Your task to perform on an android device: What's on my calendar today? Image 0: 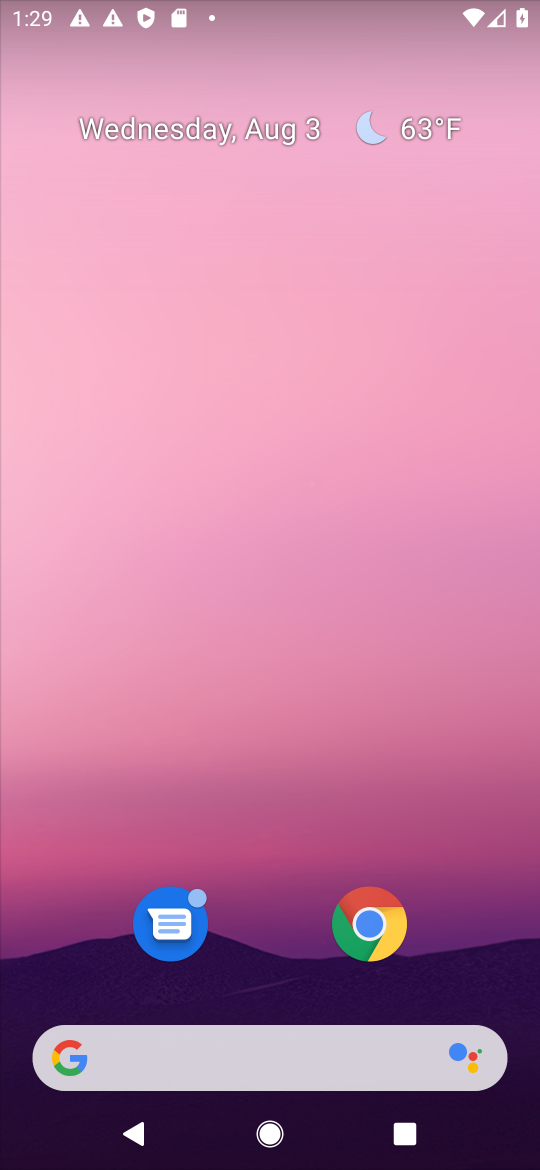
Step 0: press home button
Your task to perform on an android device: What's on my calendar today? Image 1: 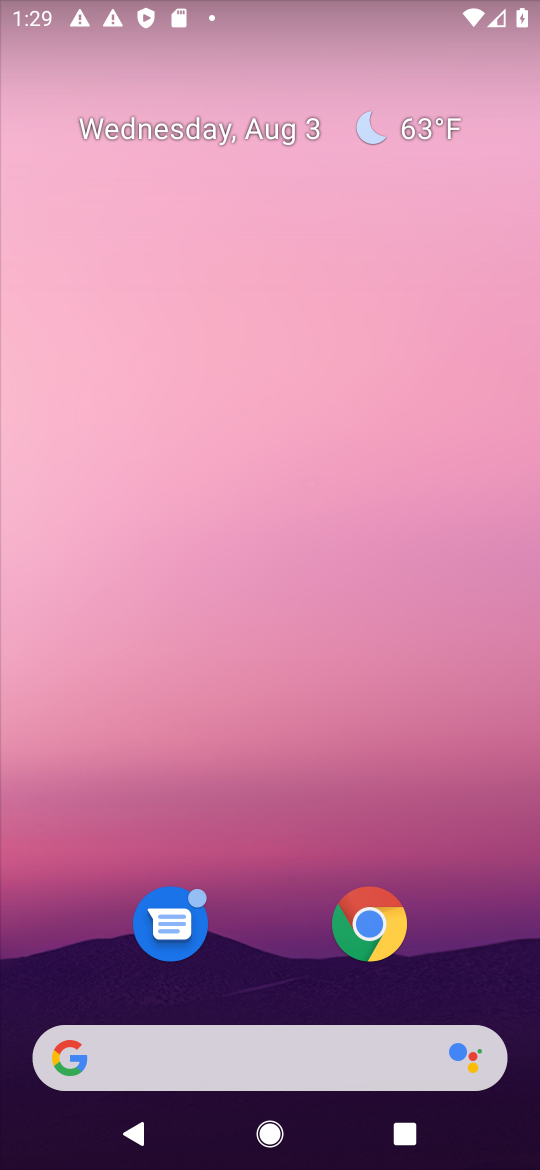
Step 1: drag from (273, 973) to (330, 0)
Your task to perform on an android device: What's on my calendar today? Image 2: 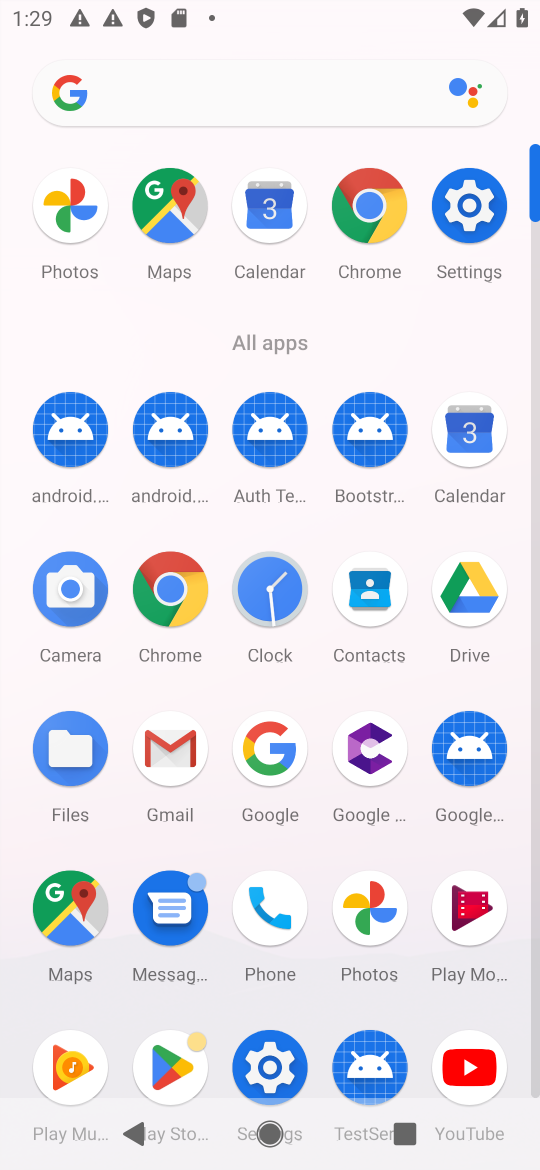
Step 2: click (468, 427)
Your task to perform on an android device: What's on my calendar today? Image 3: 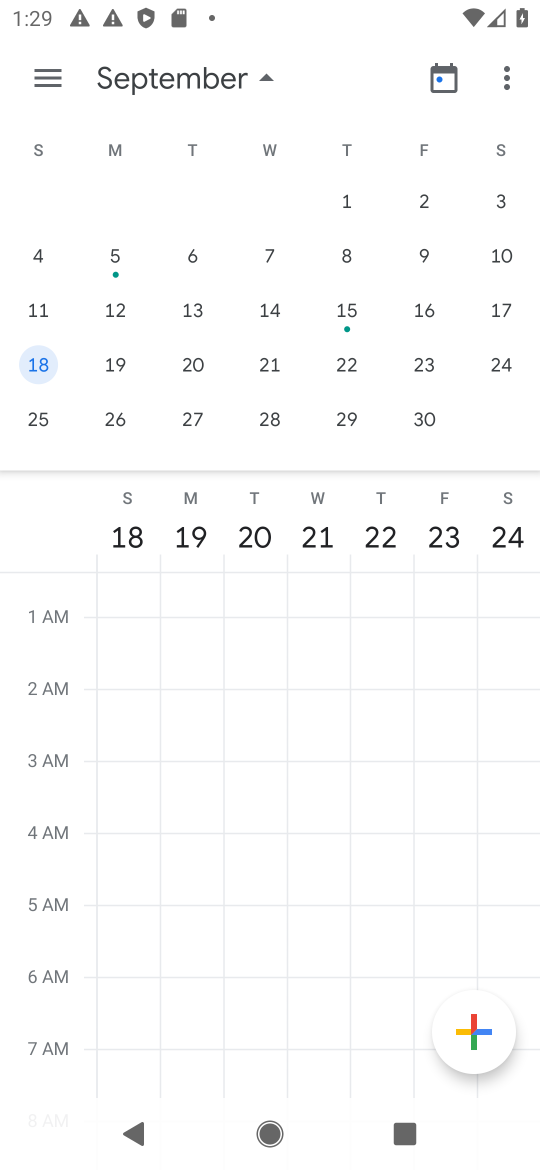
Step 3: click (32, 66)
Your task to perform on an android device: What's on my calendar today? Image 4: 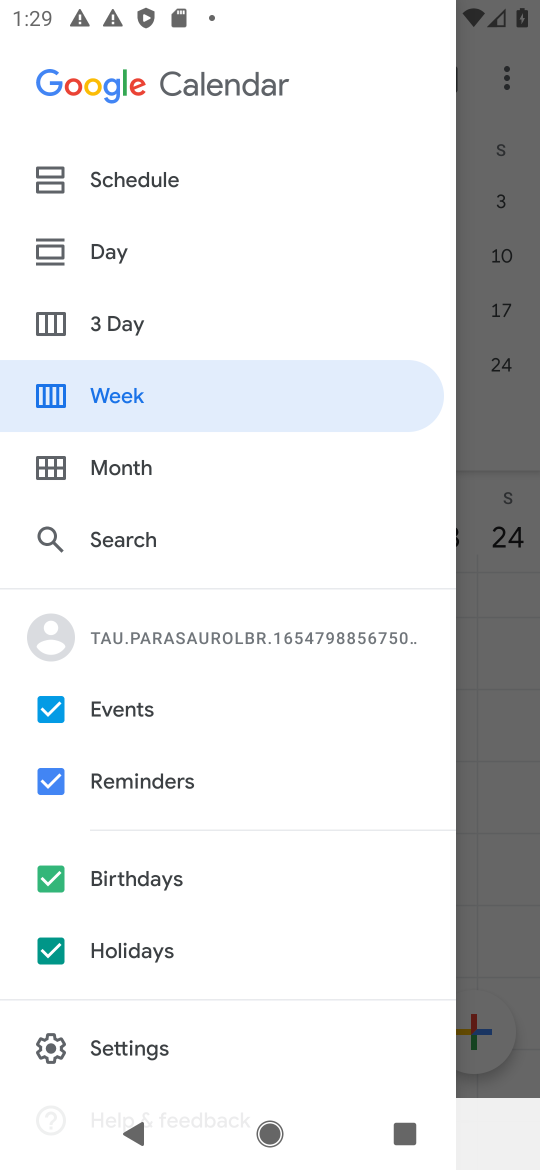
Step 4: click (99, 249)
Your task to perform on an android device: What's on my calendar today? Image 5: 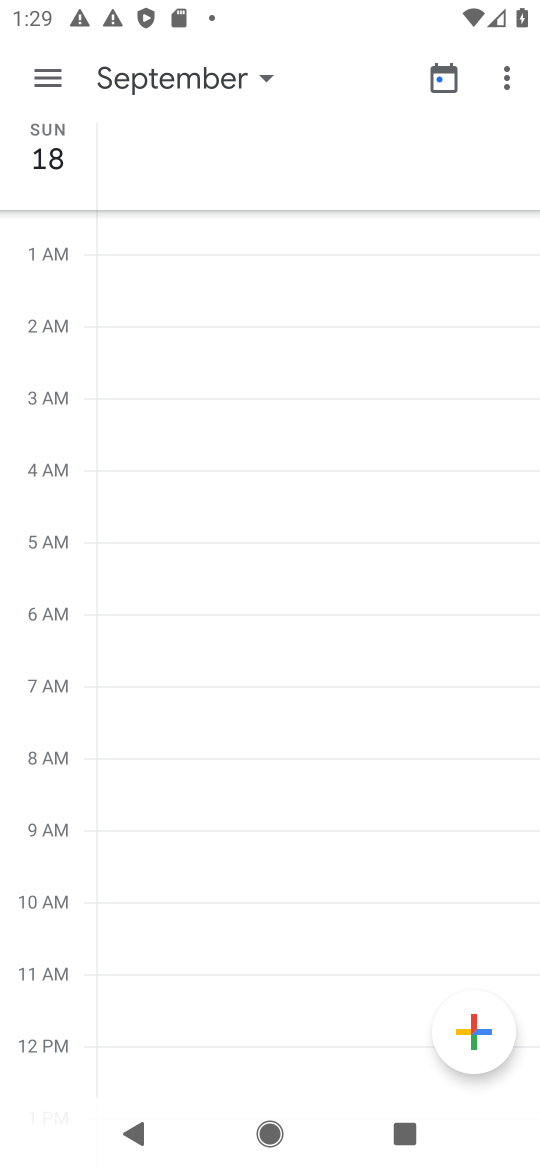
Step 5: click (264, 80)
Your task to perform on an android device: What's on my calendar today? Image 6: 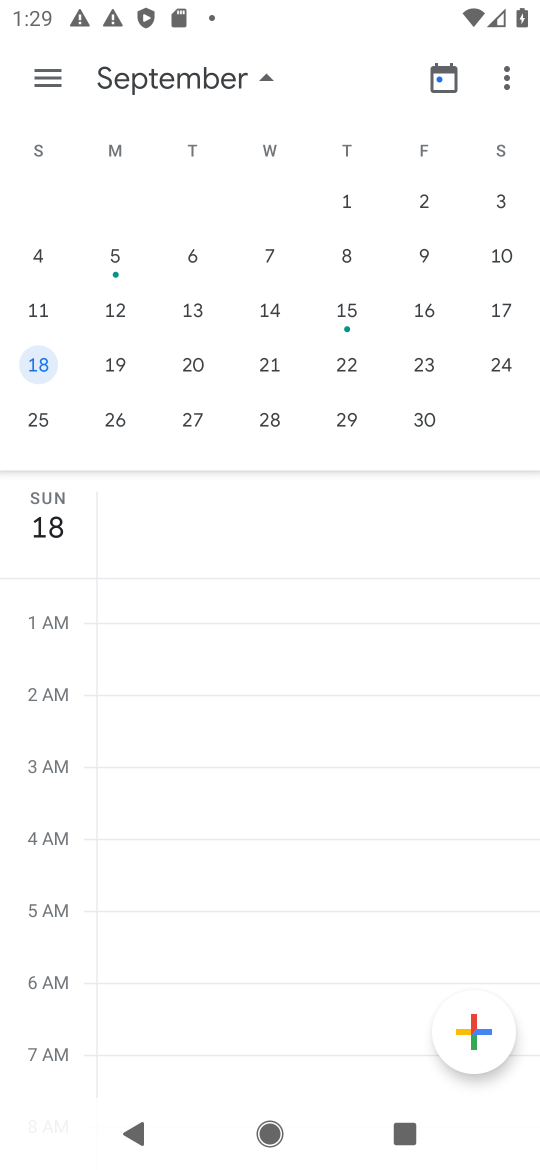
Step 6: drag from (51, 289) to (493, 311)
Your task to perform on an android device: What's on my calendar today? Image 7: 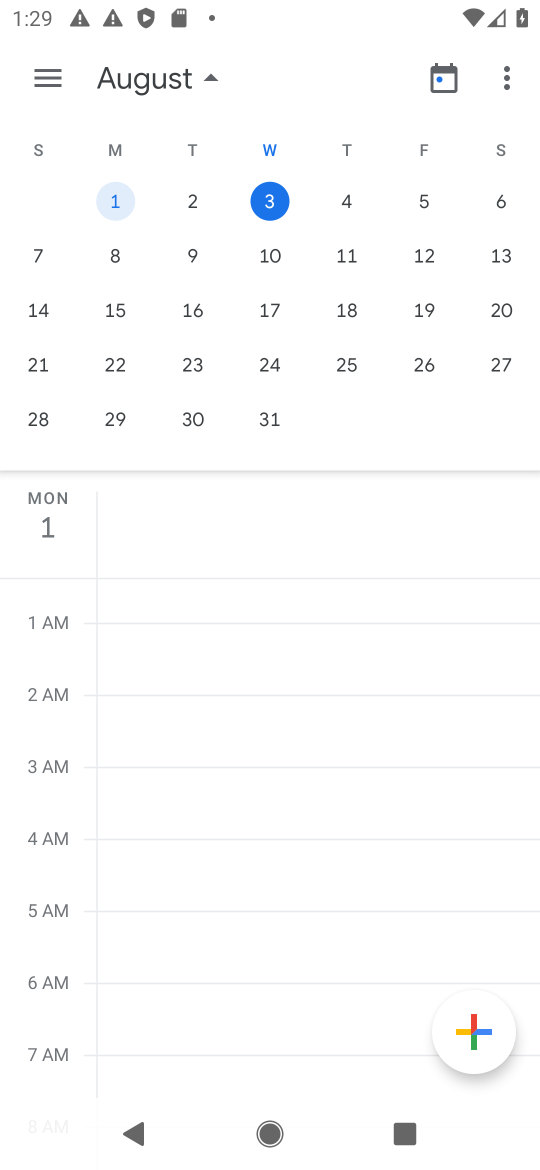
Step 7: click (269, 203)
Your task to perform on an android device: What's on my calendar today? Image 8: 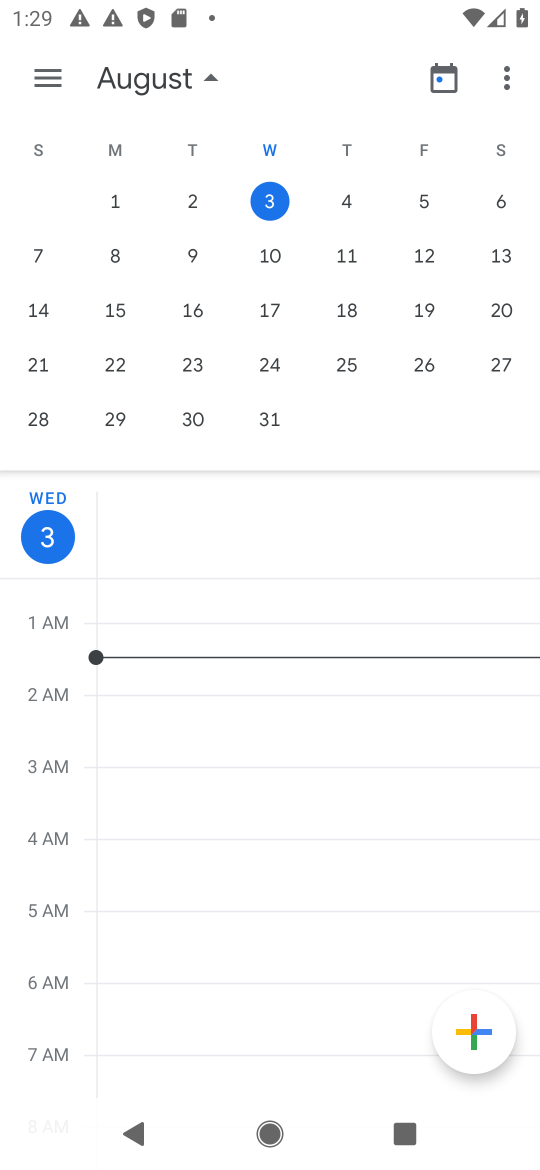
Step 8: click (213, 74)
Your task to perform on an android device: What's on my calendar today? Image 9: 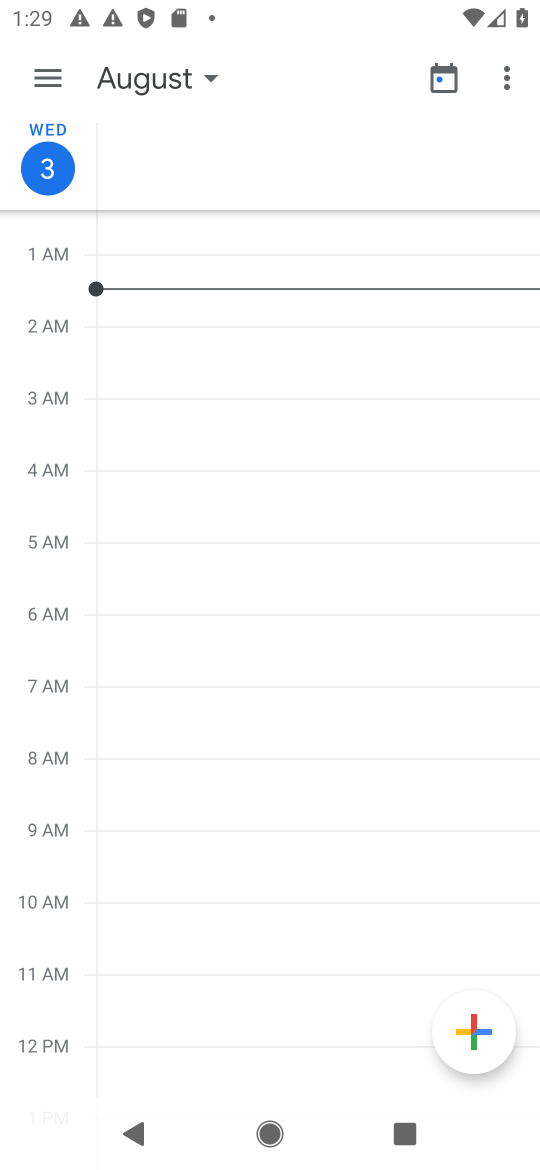
Step 9: task complete